Your task to perform on an android device: Open battery settings Image 0: 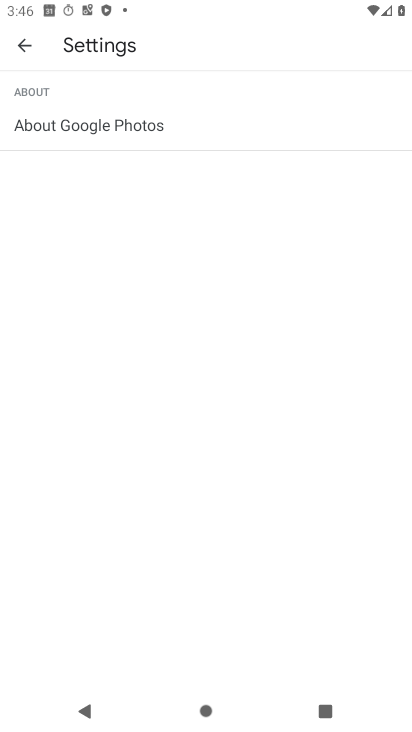
Step 0: press home button
Your task to perform on an android device: Open battery settings Image 1: 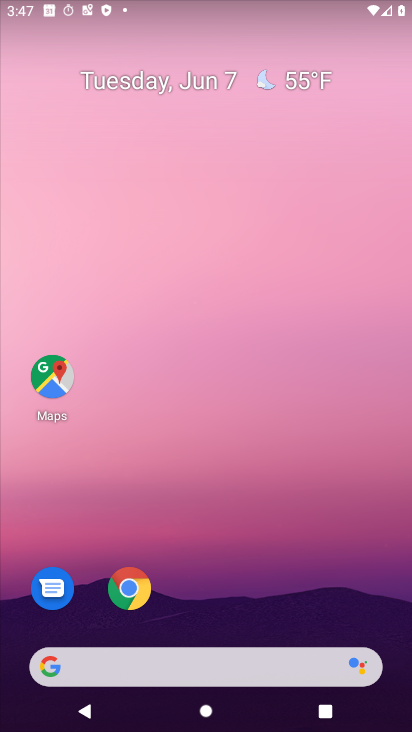
Step 1: drag from (319, 400) to (272, 3)
Your task to perform on an android device: Open battery settings Image 2: 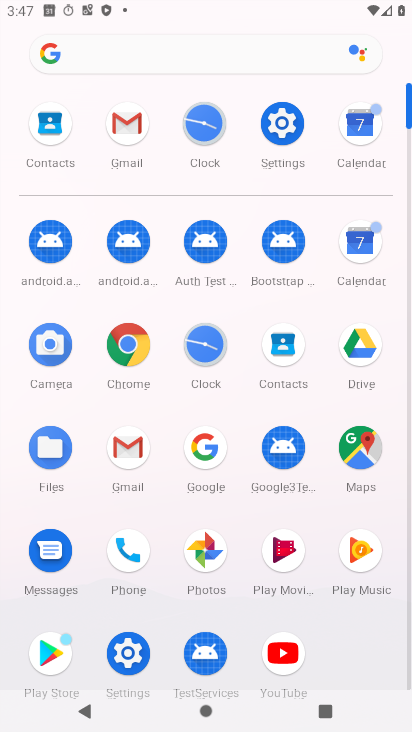
Step 2: click (283, 141)
Your task to perform on an android device: Open battery settings Image 3: 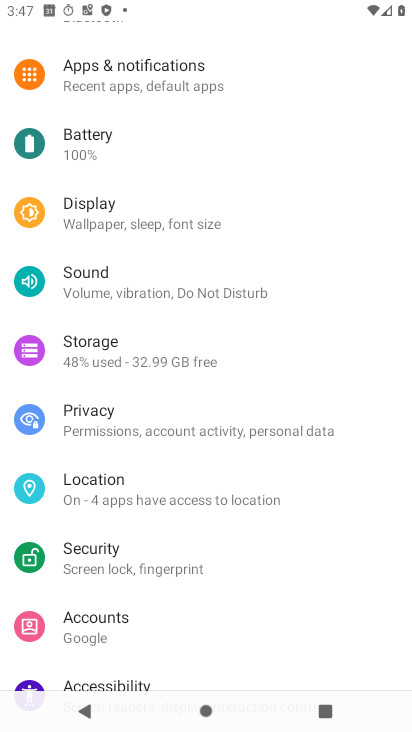
Step 3: click (77, 130)
Your task to perform on an android device: Open battery settings Image 4: 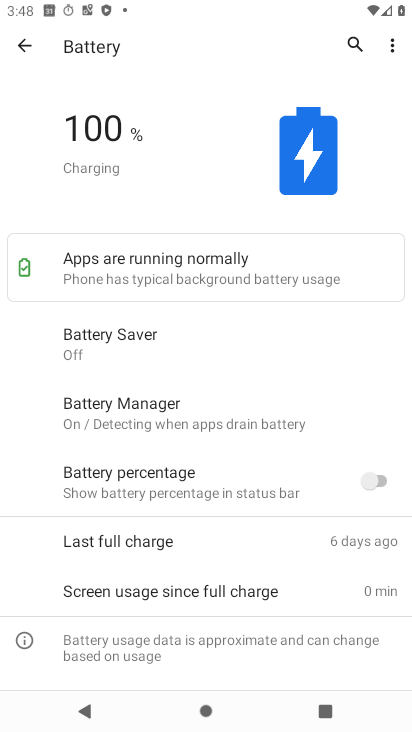
Step 4: task complete